Your task to perform on an android device: View the shopping cart on bestbuy.com. Add "usb-c to usb-a" to the cart on bestbuy.com Image 0: 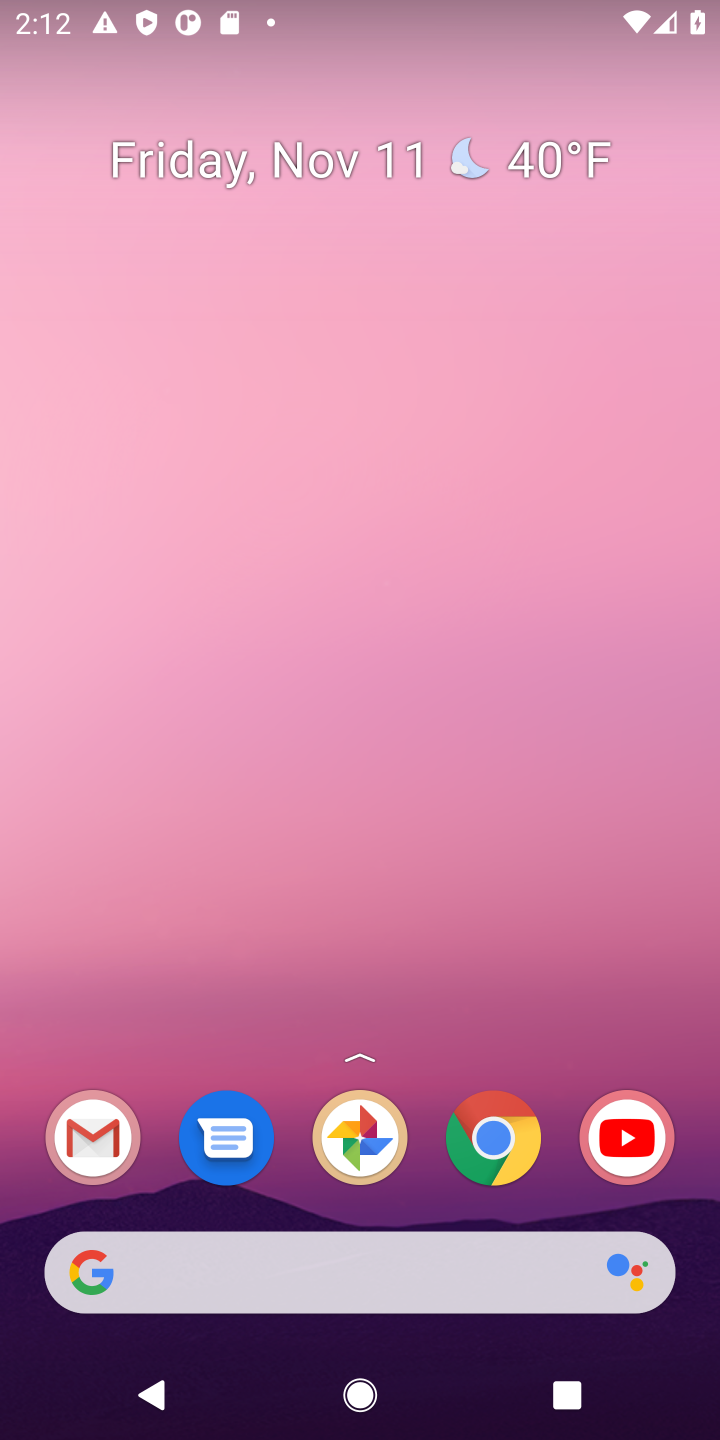
Step 0: click (516, 1135)
Your task to perform on an android device: View the shopping cart on bestbuy.com. Add "usb-c to usb-a" to the cart on bestbuy.com Image 1: 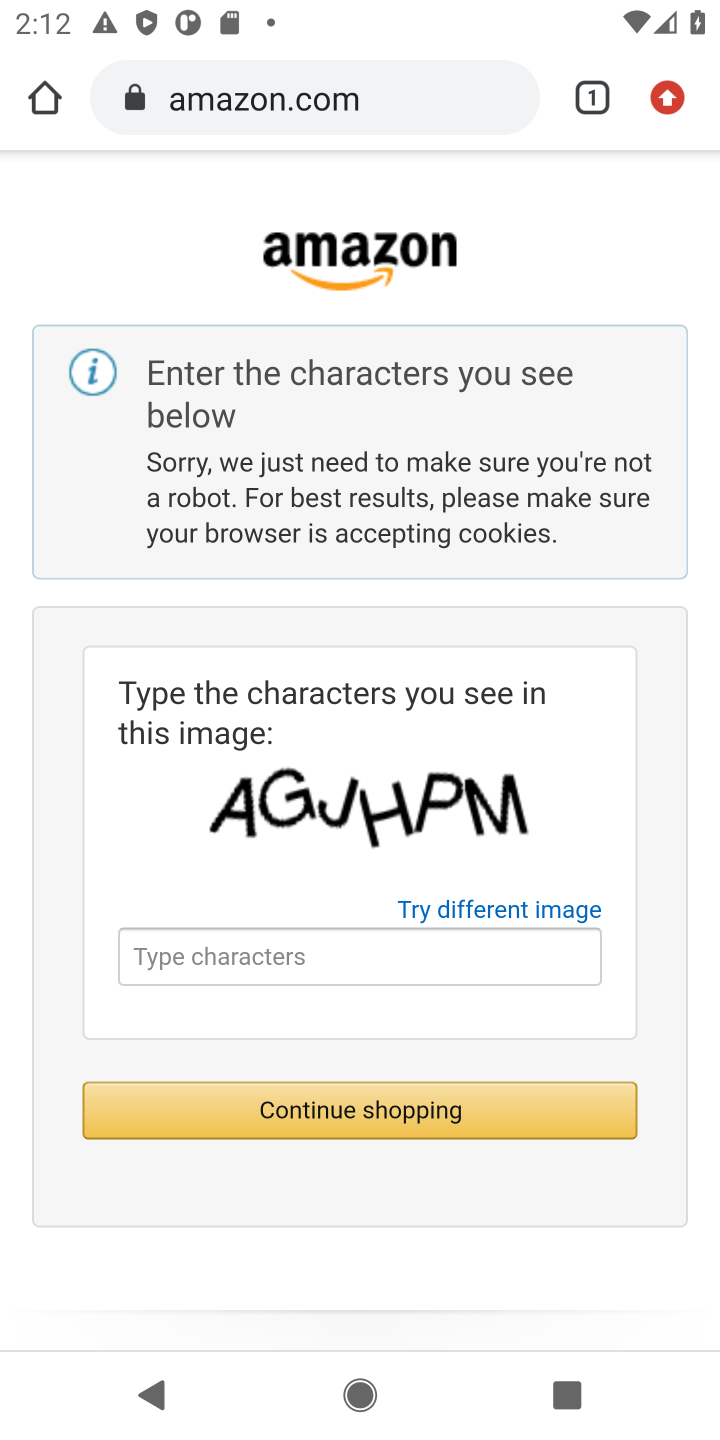
Step 1: click (306, 85)
Your task to perform on an android device: View the shopping cart on bestbuy.com. Add "usb-c to usb-a" to the cart on bestbuy.com Image 2: 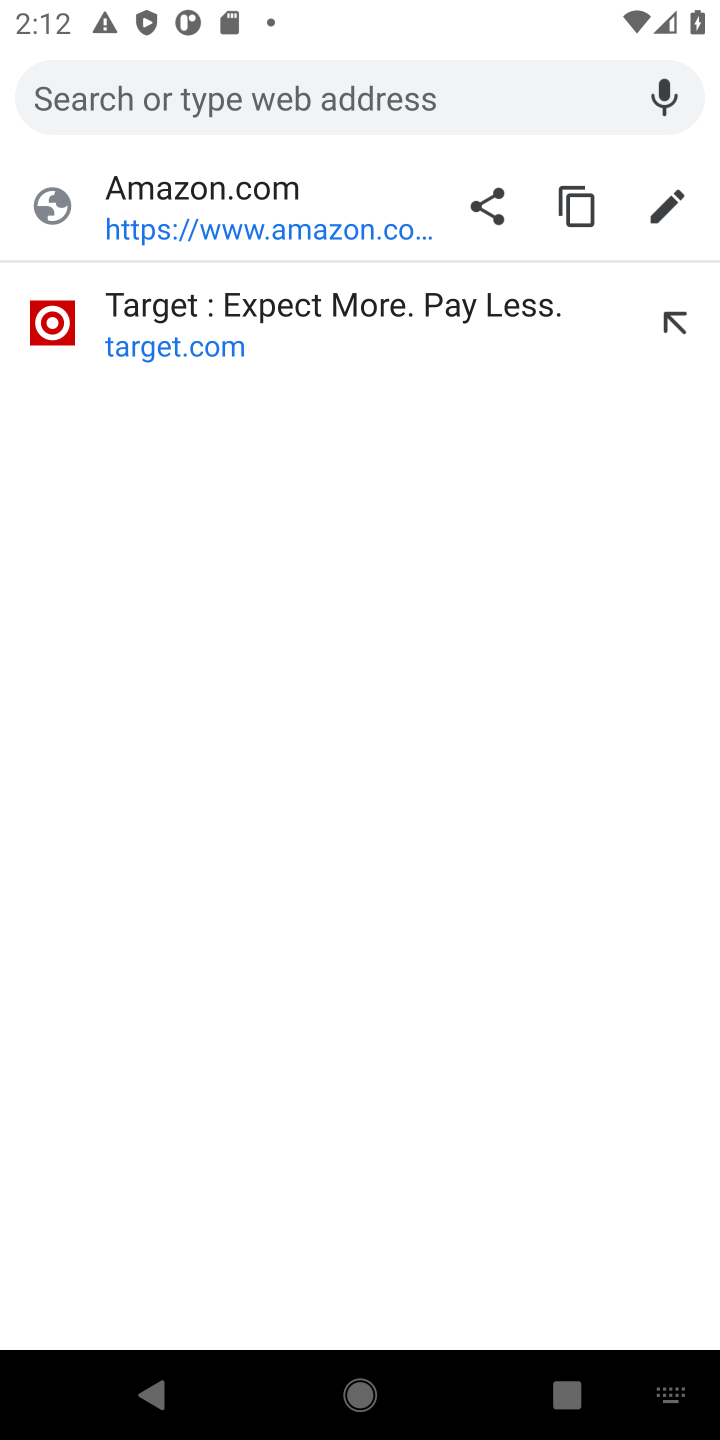
Step 2: type "bestbuy.com"
Your task to perform on an android device: View the shopping cart on bestbuy.com. Add "usb-c to usb-a" to the cart on bestbuy.com Image 3: 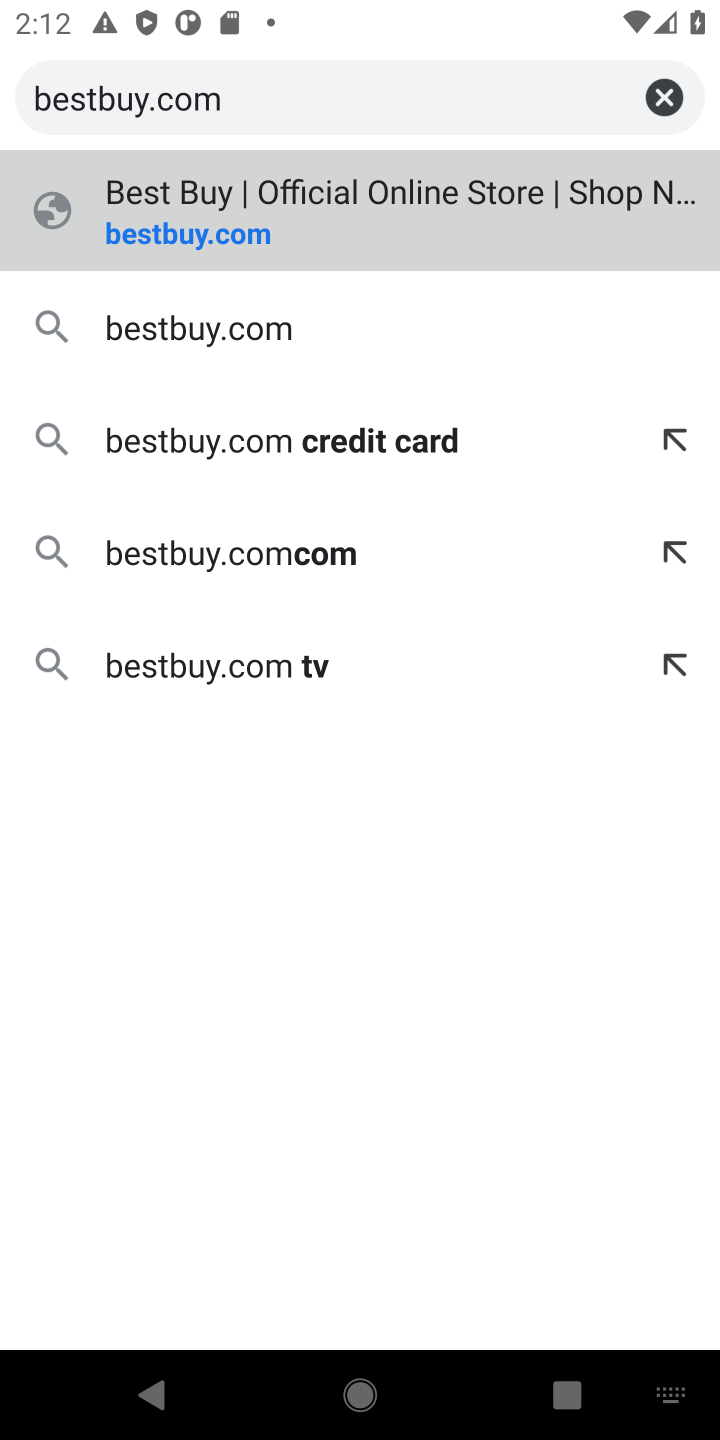
Step 3: press enter
Your task to perform on an android device: View the shopping cart on bestbuy.com. Add "usb-c to usb-a" to the cart on bestbuy.com Image 4: 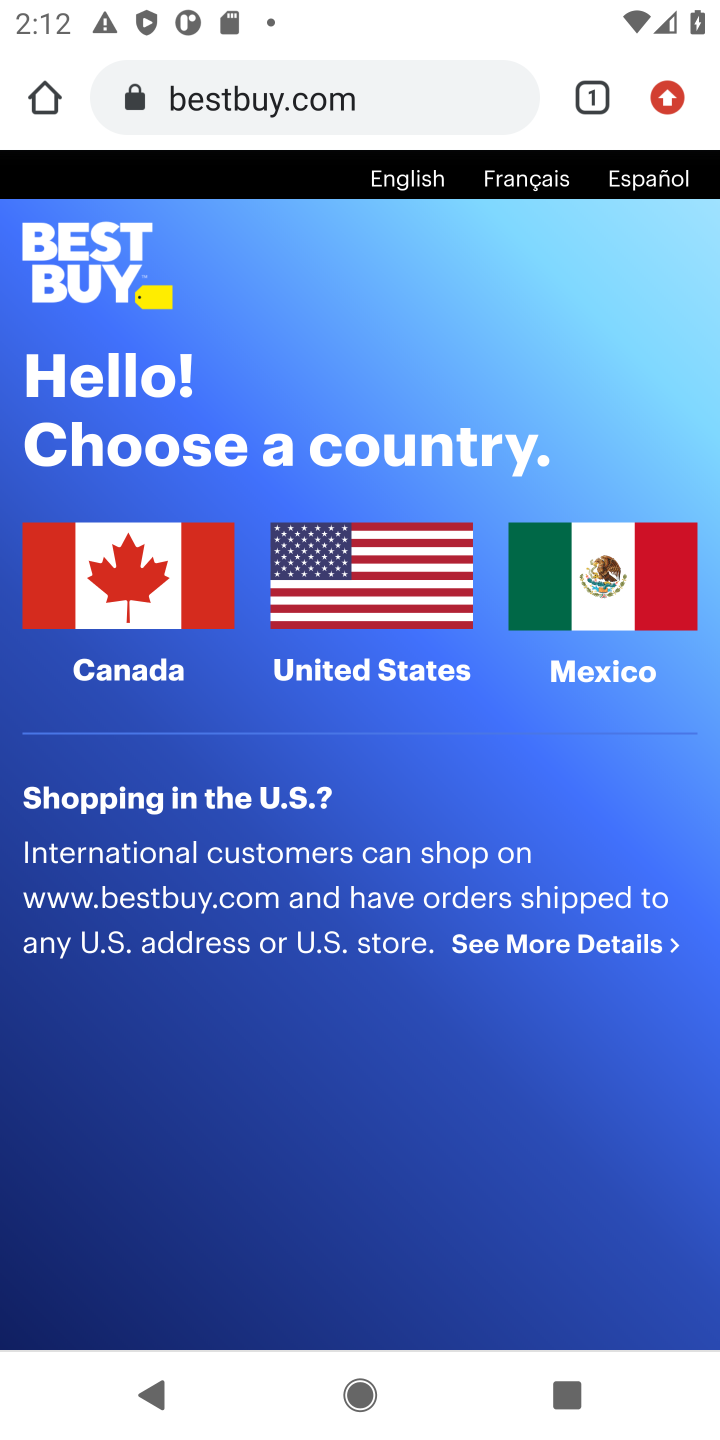
Step 4: click (388, 588)
Your task to perform on an android device: View the shopping cart on bestbuy.com. Add "usb-c to usb-a" to the cart on bestbuy.com Image 5: 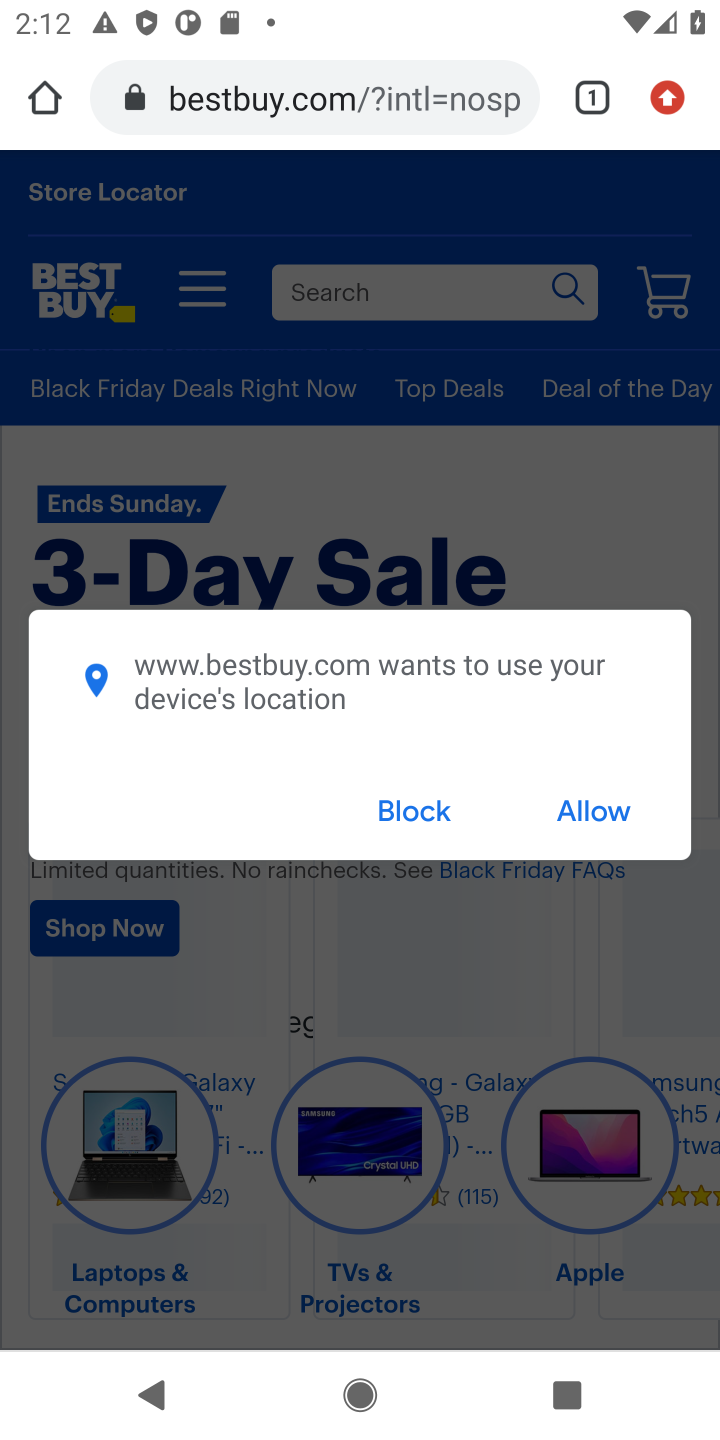
Step 5: click (438, 820)
Your task to perform on an android device: View the shopping cart on bestbuy.com. Add "usb-c to usb-a" to the cart on bestbuy.com Image 6: 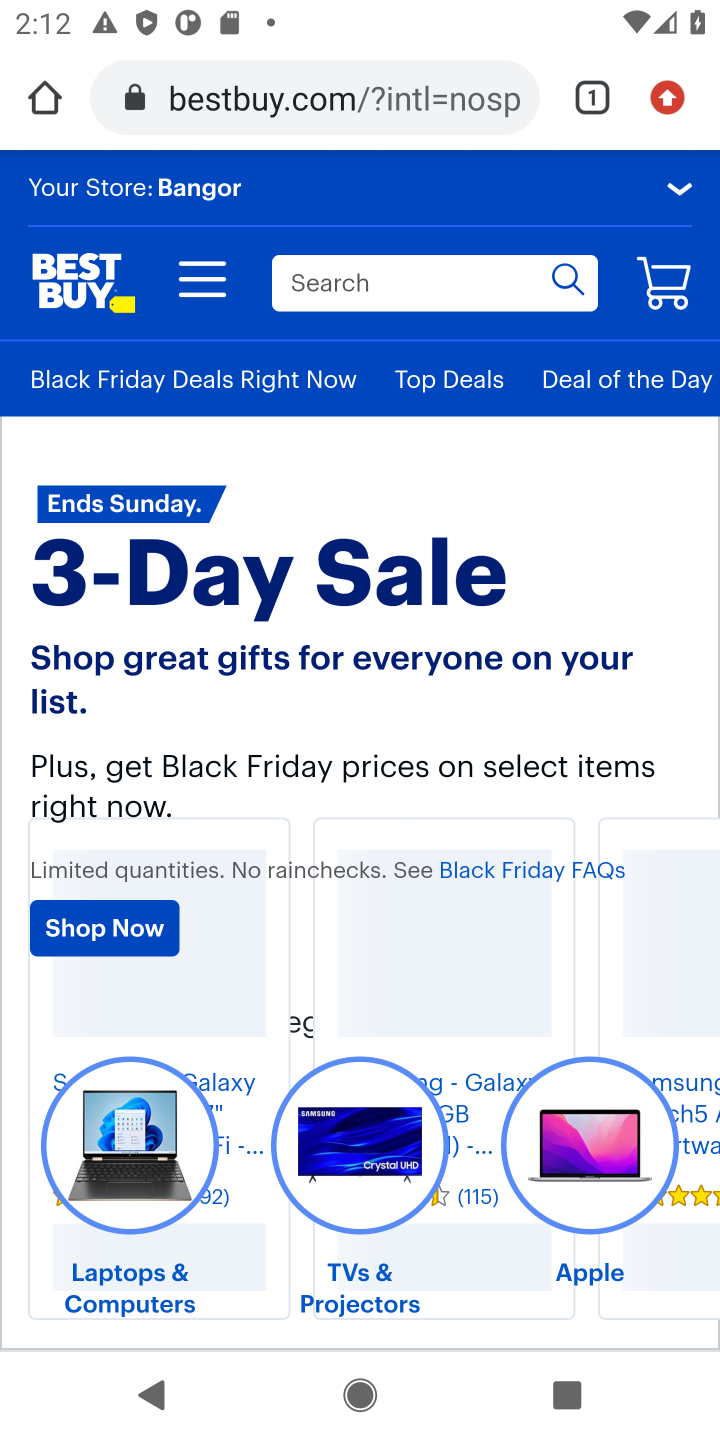
Step 6: click (440, 287)
Your task to perform on an android device: View the shopping cart on bestbuy.com. Add "usb-c to usb-a" to the cart on bestbuy.com Image 7: 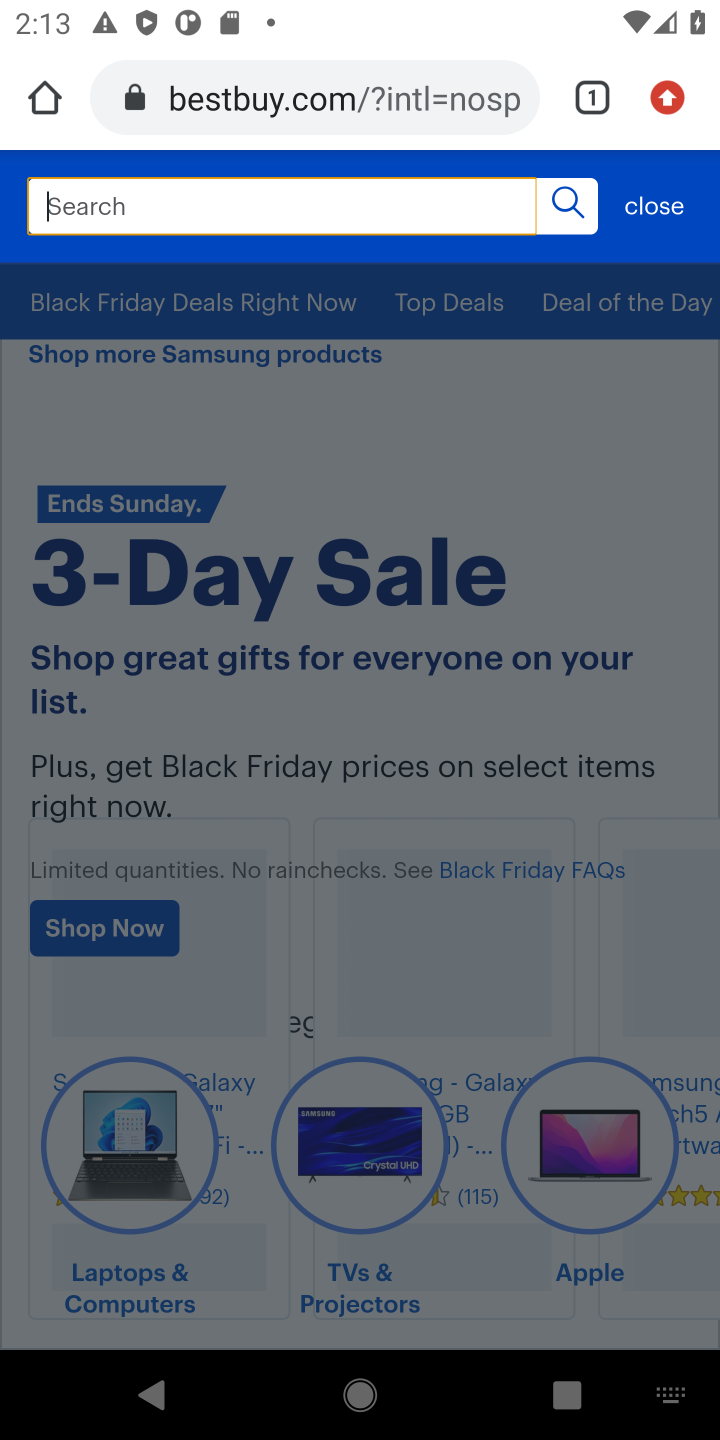
Step 7: type "usb-c to usb-a"
Your task to perform on an android device: View the shopping cart on bestbuy.com. Add "usb-c to usb-a" to the cart on bestbuy.com Image 8: 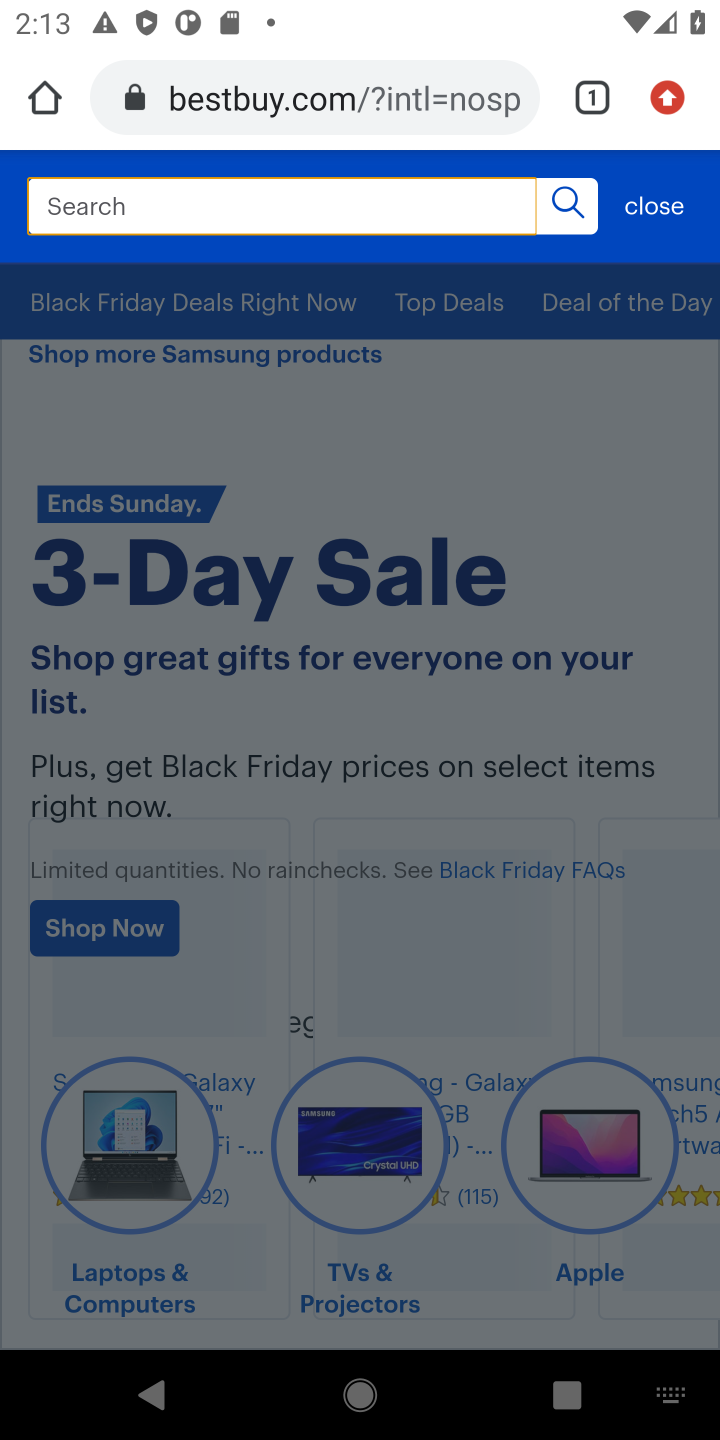
Step 8: press enter
Your task to perform on an android device: View the shopping cart on bestbuy.com. Add "usb-c to usb-a" to the cart on bestbuy.com Image 9: 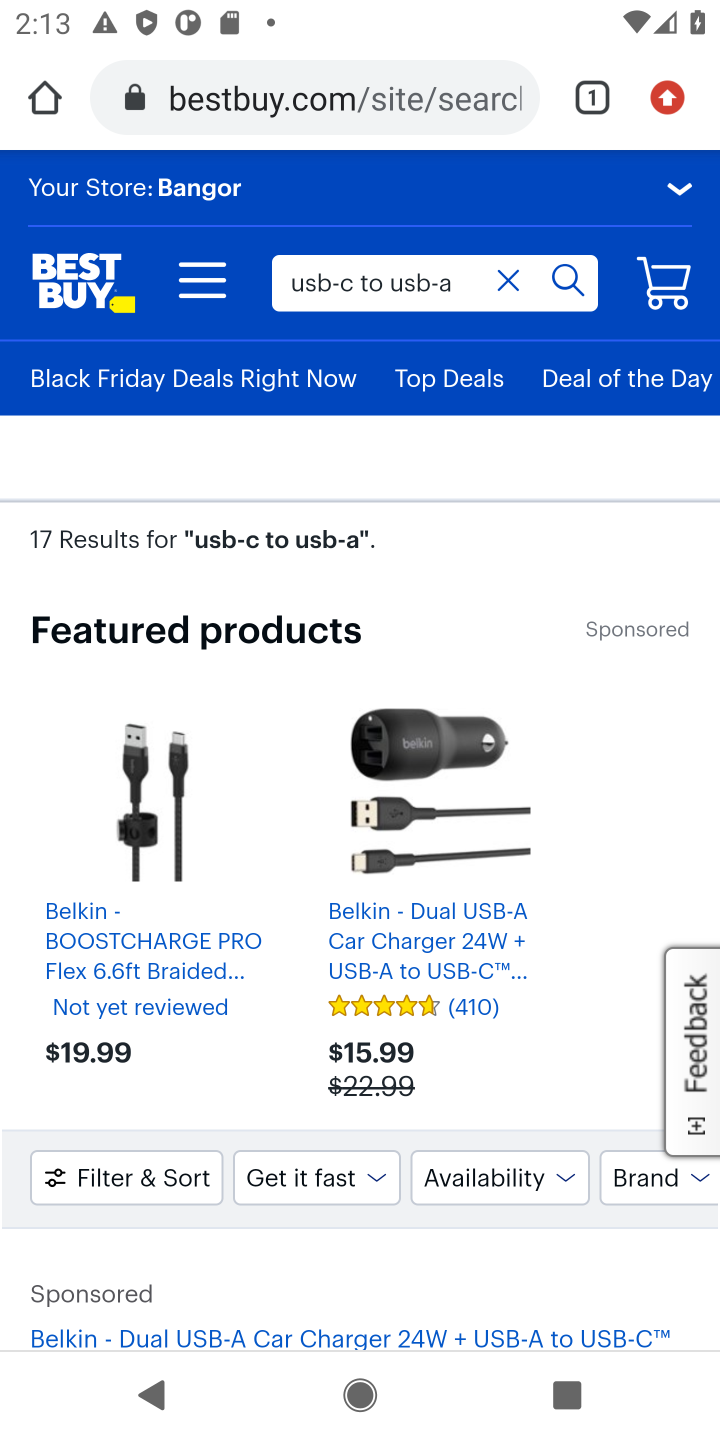
Step 9: click (459, 805)
Your task to perform on an android device: View the shopping cart on bestbuy.com. Add "usb-c to usb-a" to the cart on bestbuy.com Image 10: 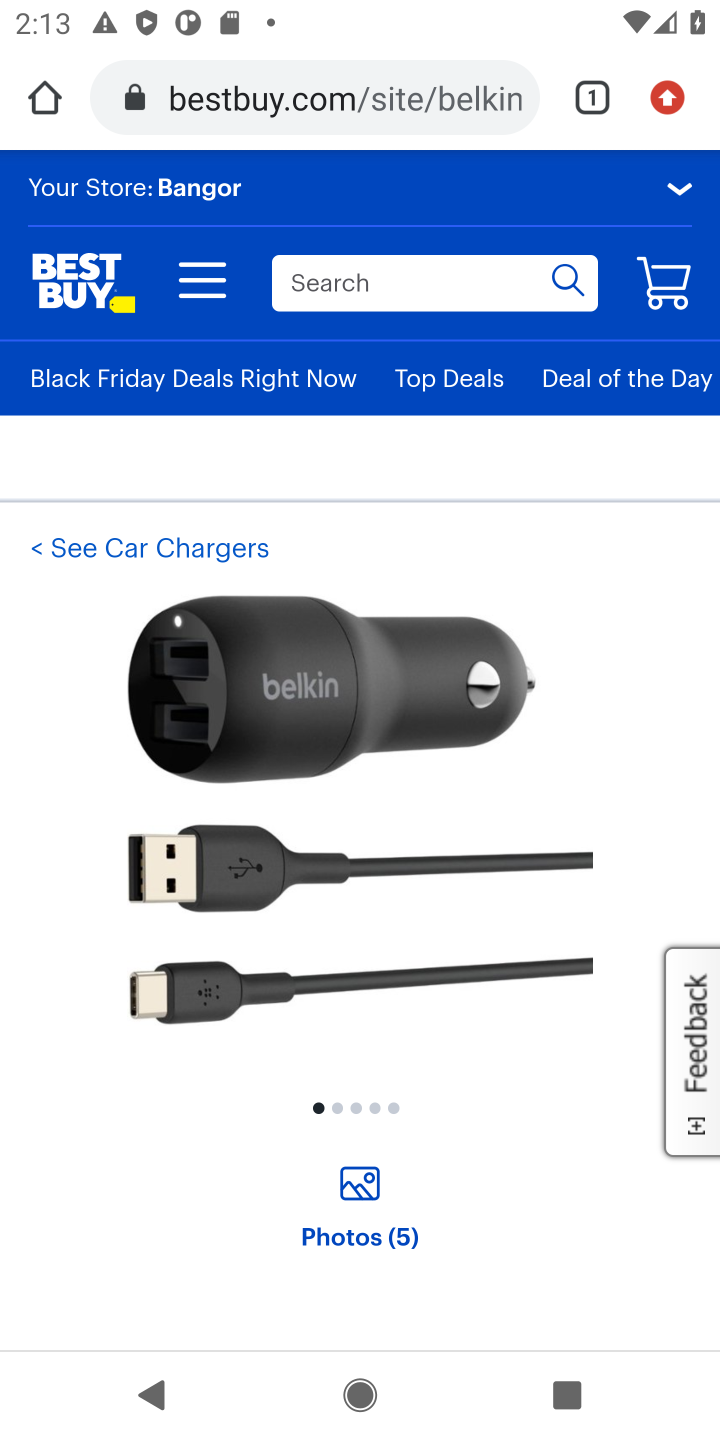
Step 10: drag from (435, 869) to (553, 321)
Your task to perform on an android device: View the shopping cart on bestbuy.com. Add "usb-c to usb-a" to the cart on bestbuy.com Image 11: 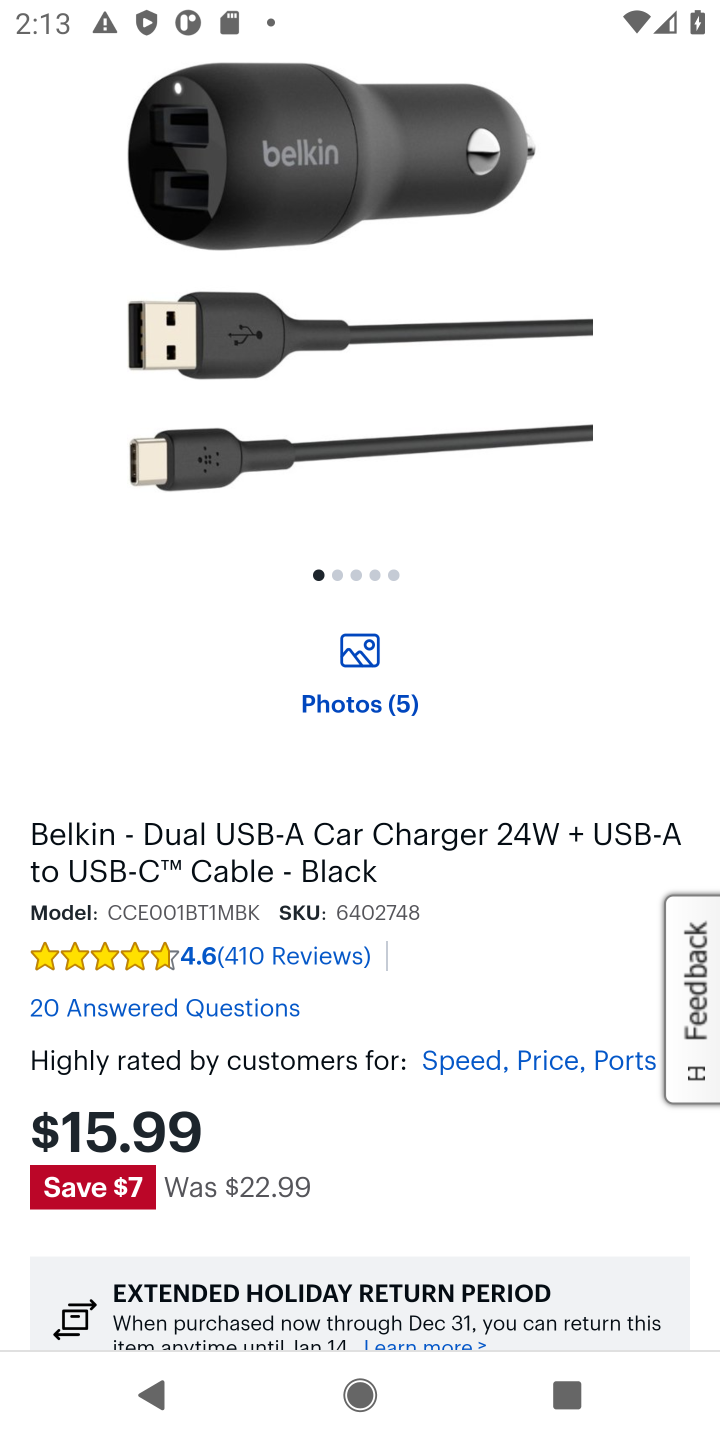
Step 11: drag from (433, 955) to (701, 171)
Your task to perform on an android device: View the shopping cart on bestbuy.com. Add "usb-c to usb-a" to the cart on bestbuy.com Image 12: 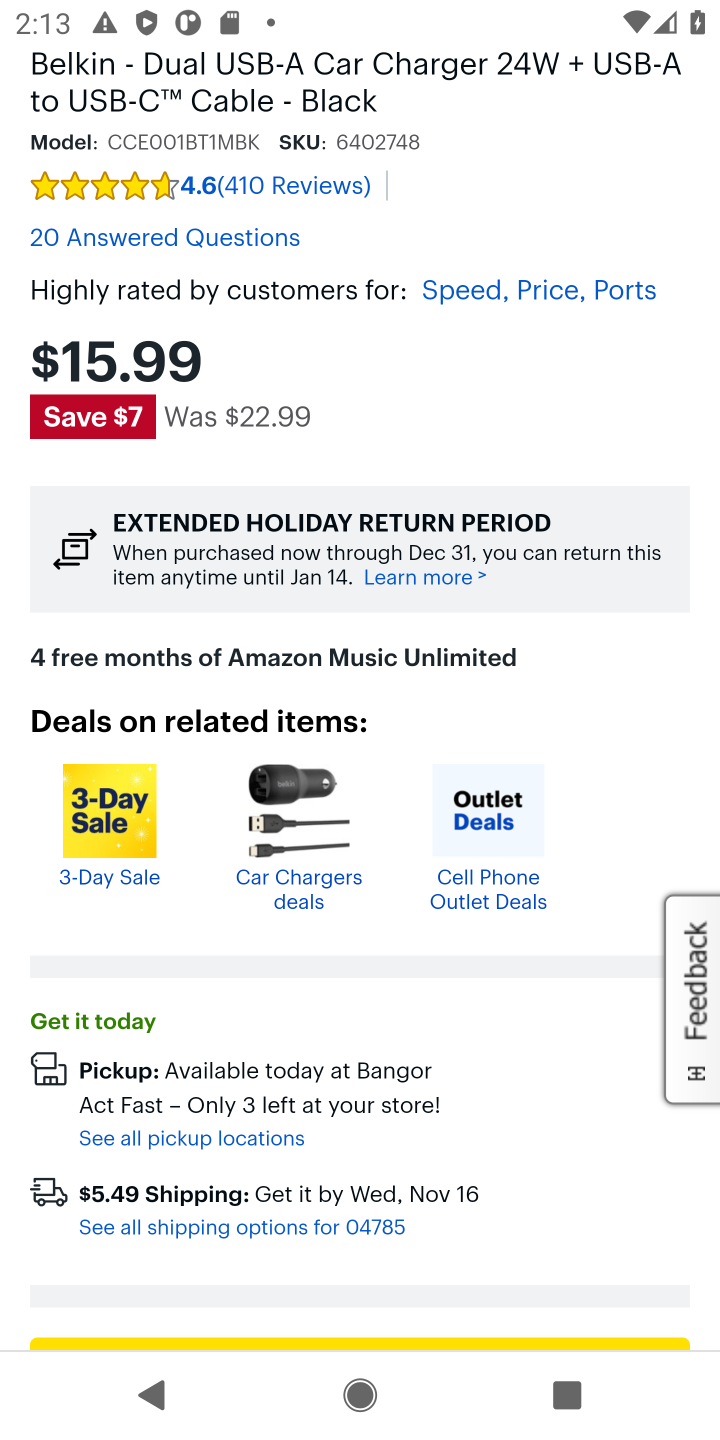
Step 12: drag from (625, 603) to (656, 420)
Your task to perform on an android device: View the shopping cart on bestbuy.com. Add "usb-c to usb-a" to the cart on bestbuy.com Image 13: 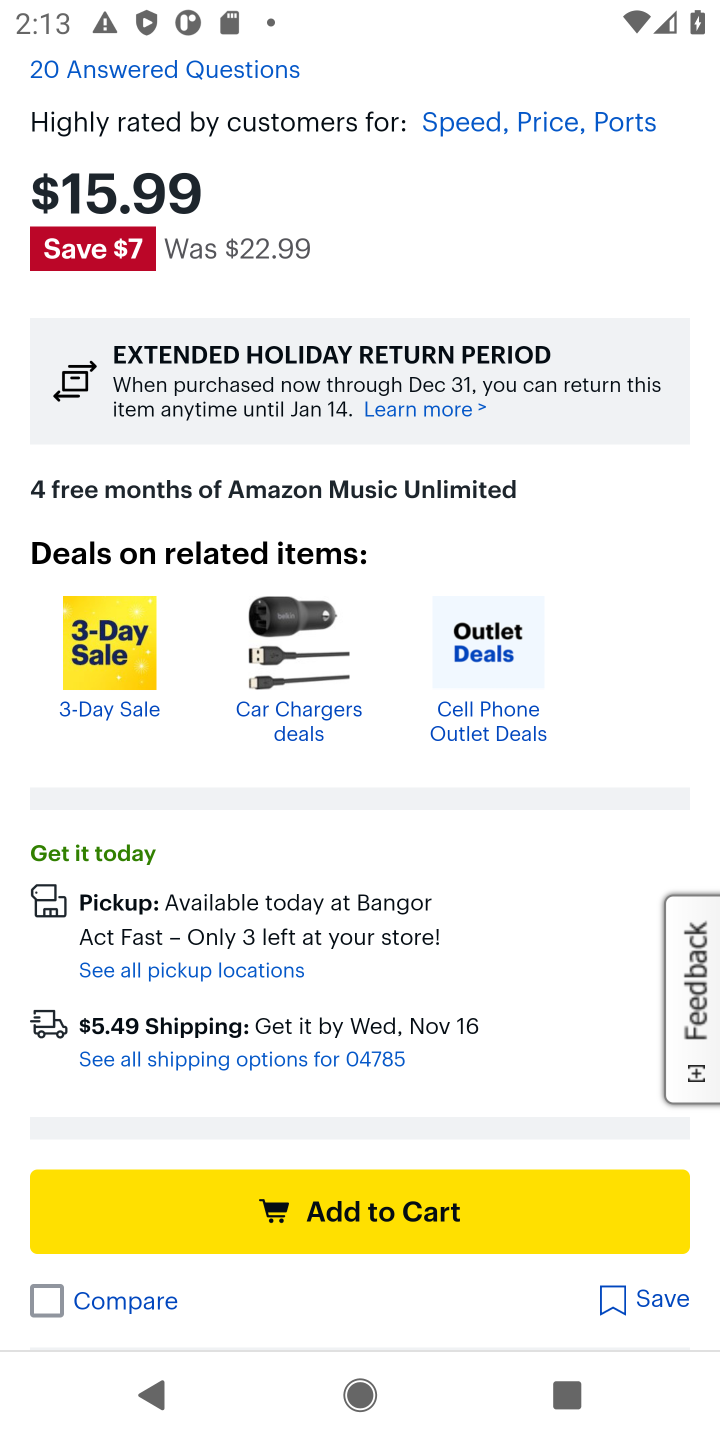
Step 13: click (474, 1218)
Your task to perform on an android device: View the shopping cart on bestbuy.com. Add "usb-c to usb-a" to the cart on bestbuy.com Image 14: 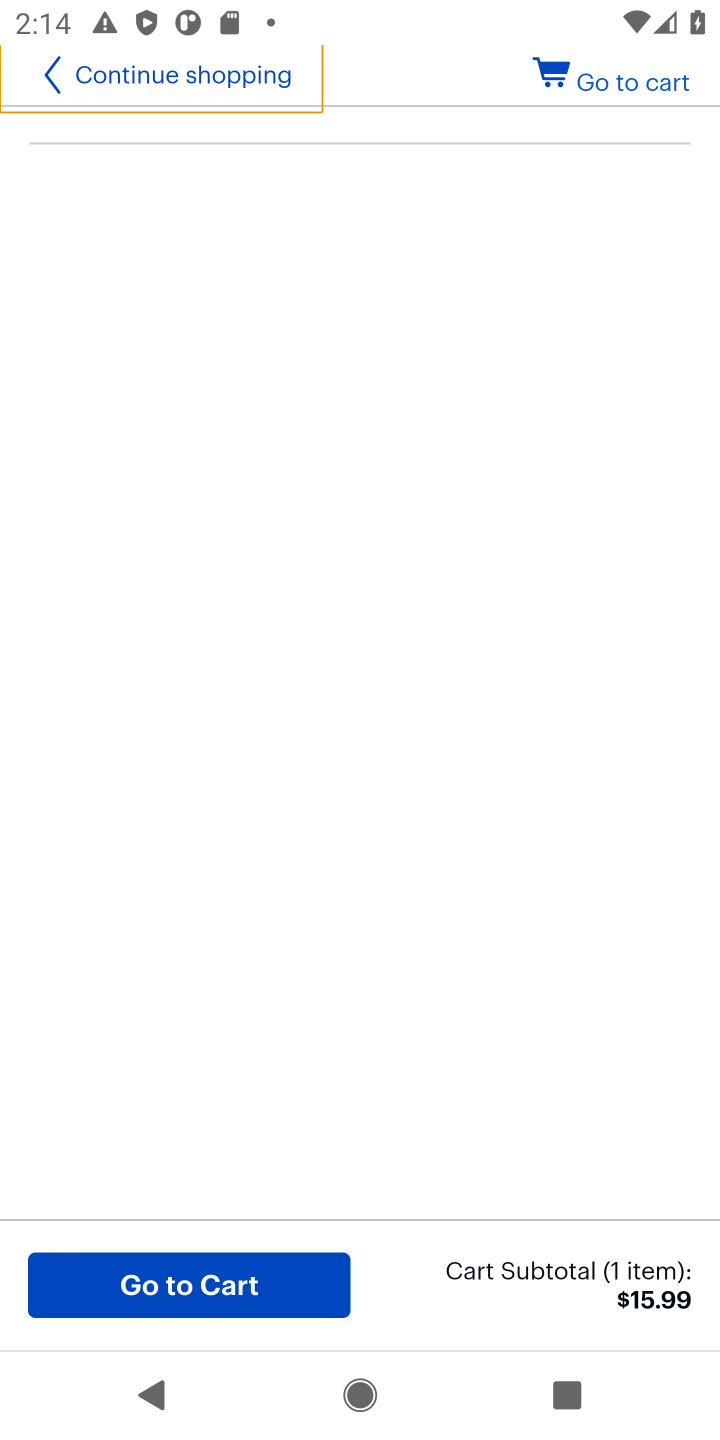
Step 14: task complete